Your task to perform on an android device: Add razer naga to the cart on walmart, then select checkout. Image 0: 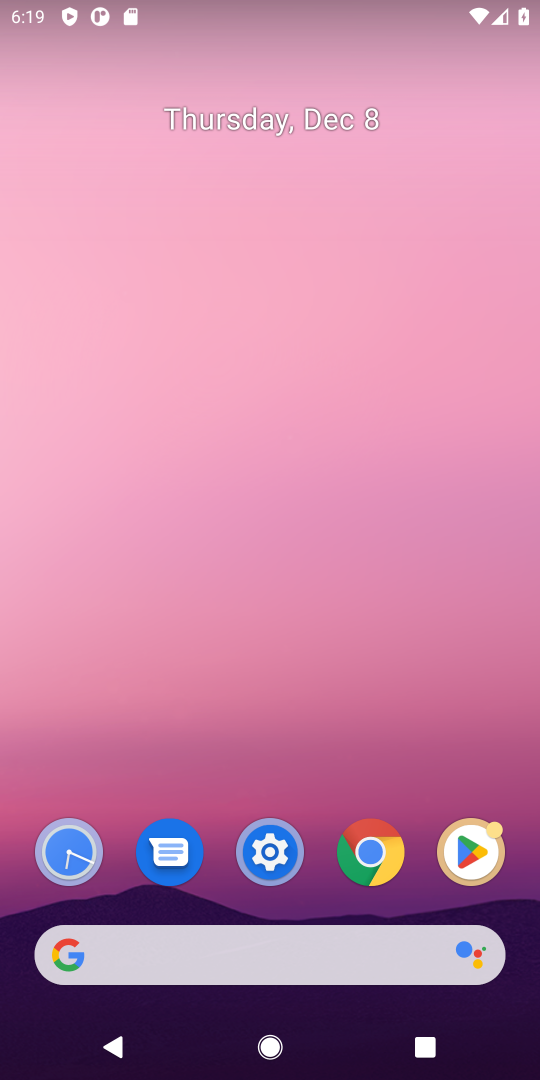
Step 0: click (190, 938)
Your task to perform on an android device: Add razer naga to the cart on walmart, then select checkout. Image 1: 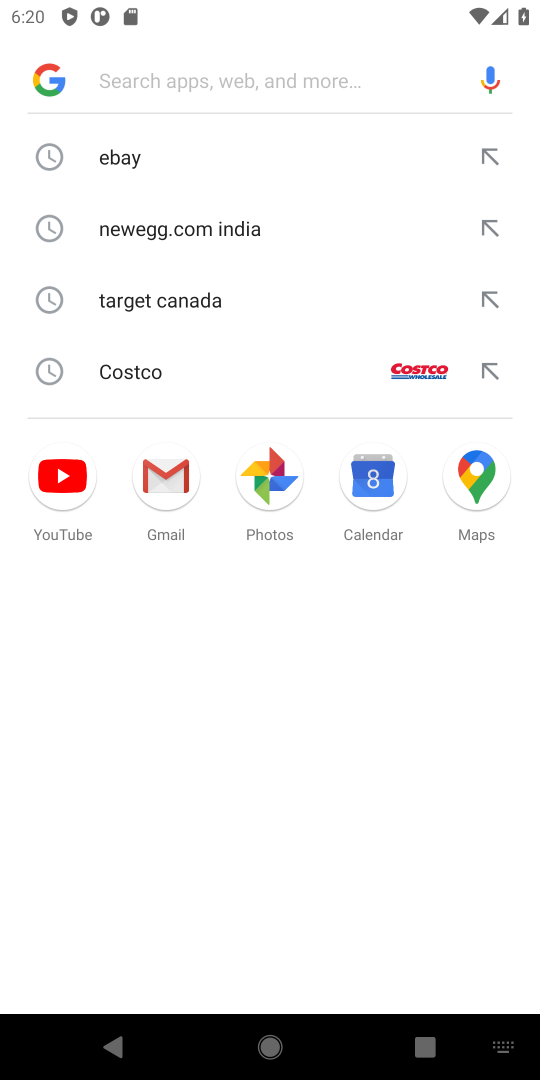
Step 1: type "walmart"
Your task to perform on an android device: Add razer naga to the cart on walmart, then select checkout. Image 2: 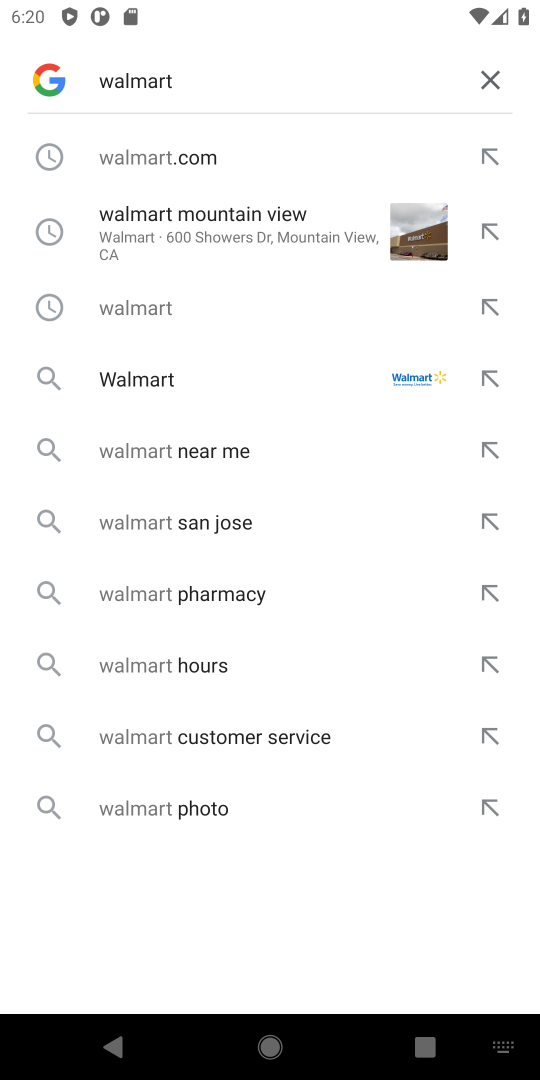
Step 2: click (139, 164)
Your task to perform on an android device: Add razer naga to the cart on walmart, then select checkout. Image 3: 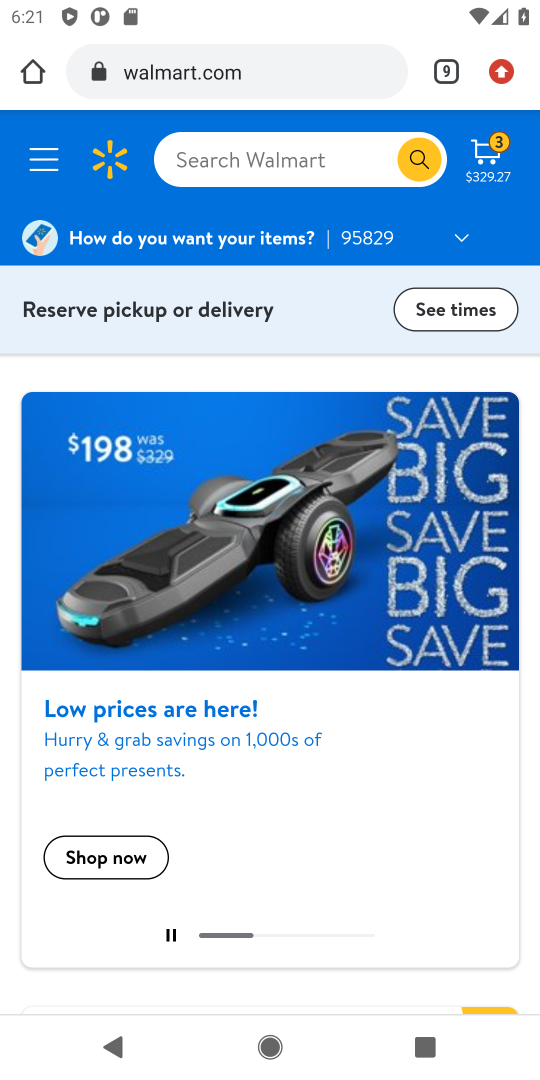
Step 3: click (313, 151)
Your task to perform on an android device: Add razer naga to the cart on walmart, then select checkout. Image 4: 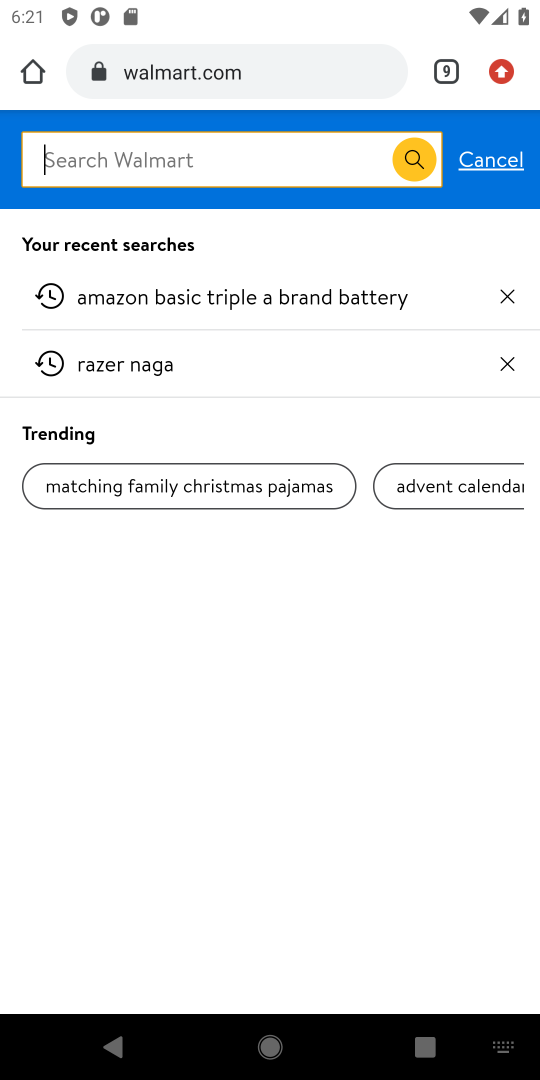
Step 4: type "razer naga"
Your task to perform on an android device: Add razer naga to the cart on walmart, then select checkout. Image 5: 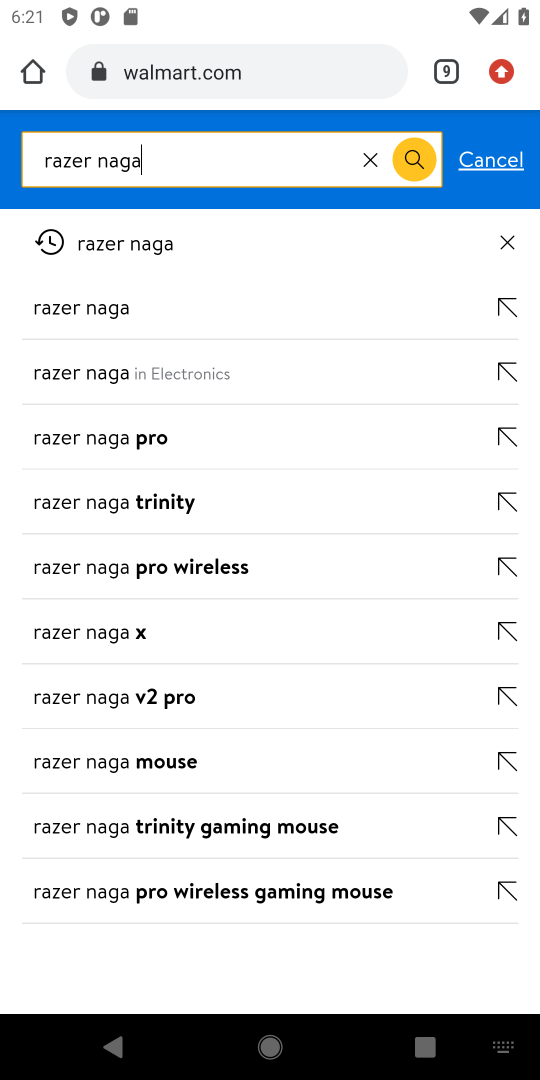
Step 5: click (109, 235)
Your task to perform on an android device: Add razer naga to the cart on walmart, then select checkout. Image 6: 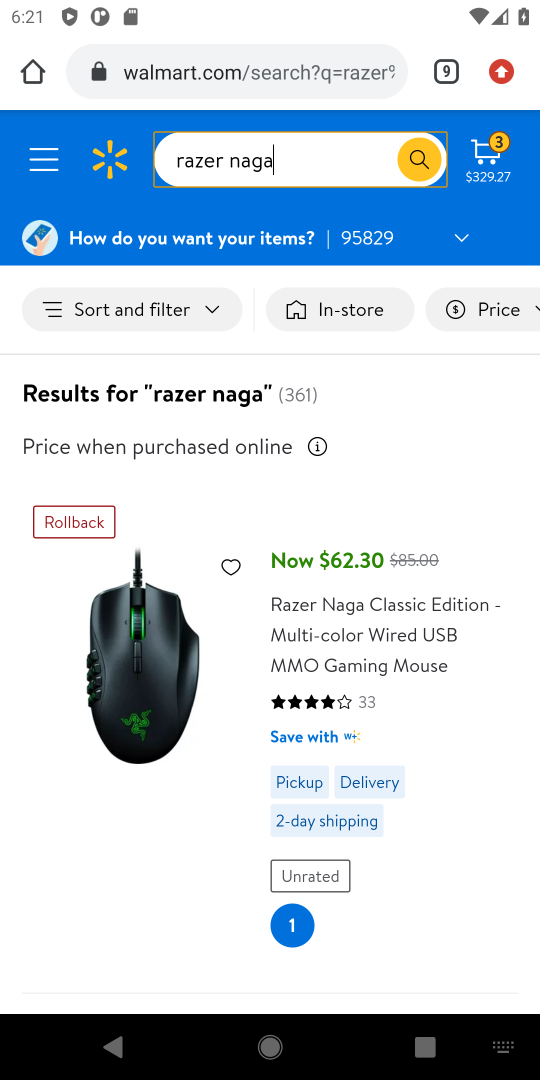
Step 6: drag from (320, 871) to (329, 445)
Your task to perform on an android device: Add razer naga to the cart on walmart, then select checkout. Image 7: 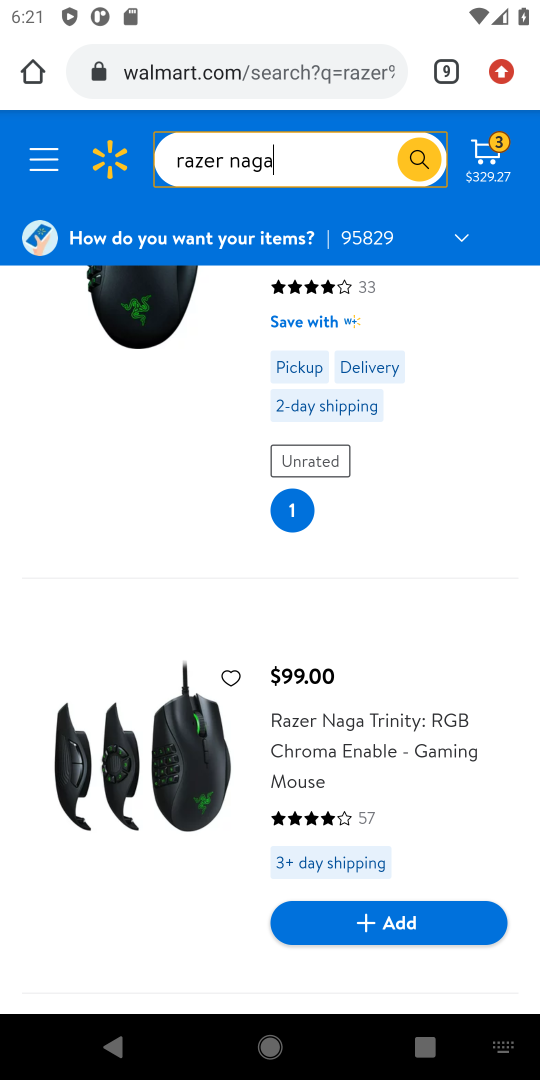
Step 7: click (434, 932)
Your task to perform on an android device: Add razer naga to the cart on walmart, then select checkout. Image 8: 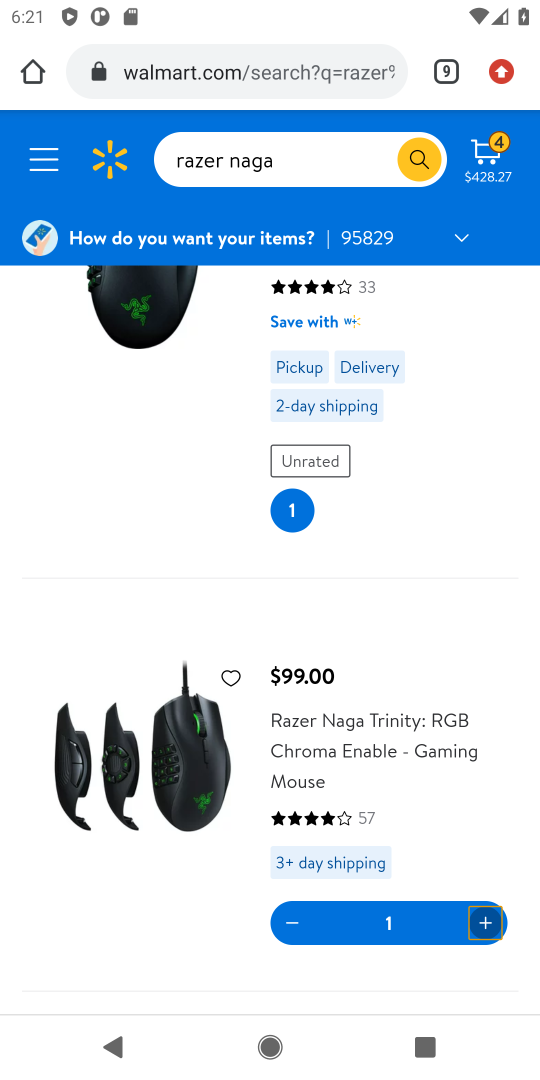
Step 8: click (487, 139)
Your task to perform on an android device: Add razer naga to the cart on walmart, then select checkout. Image 9: 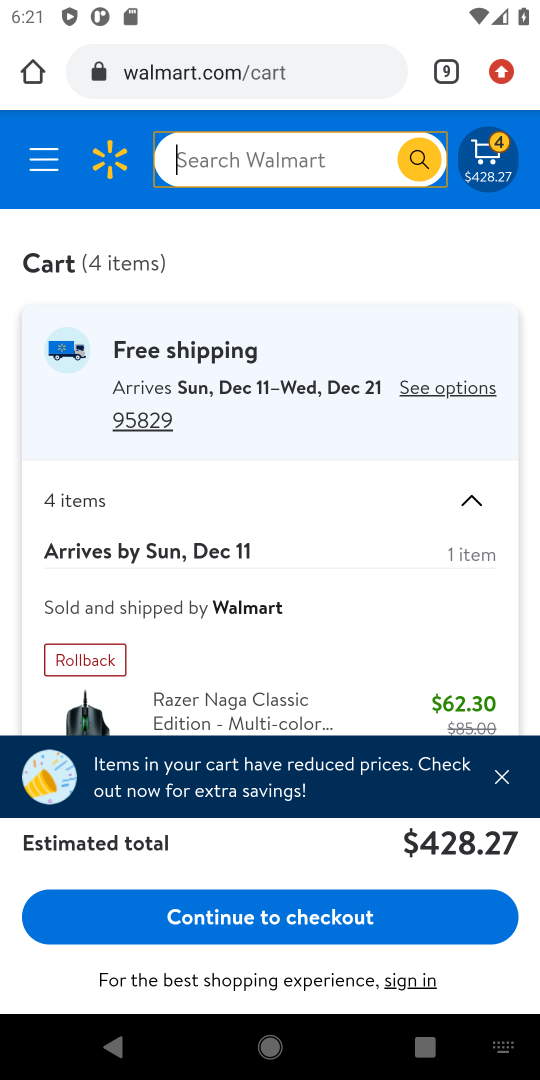
Step 9: click (256, 928)
Your task to perform on an android device: Add razer naga to the cart on walmart, then select checkout. Image 10: 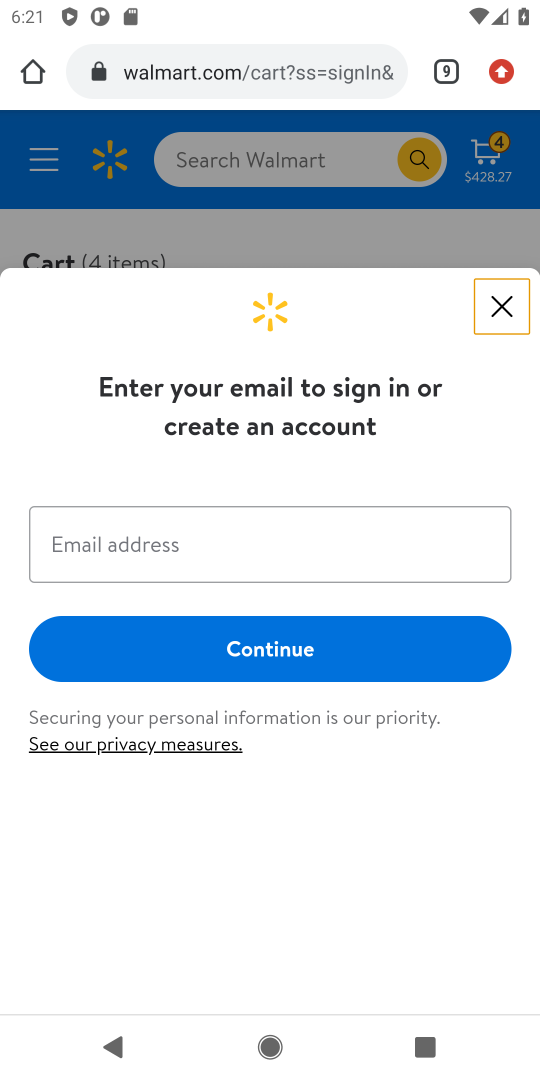
Step 10: task complete